Your task to perform on an android device: Check the weather Image 0: 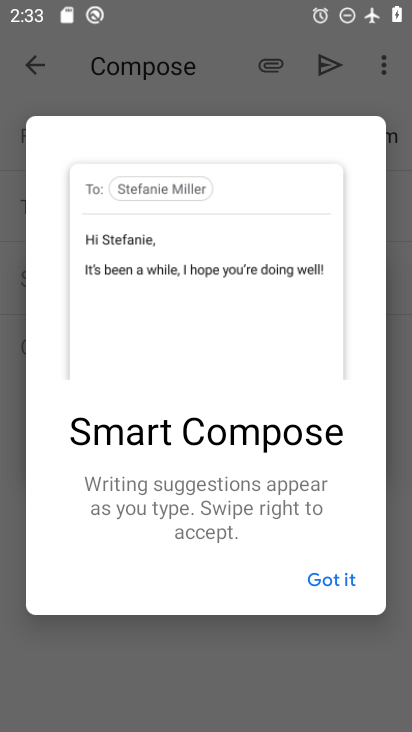
Step 0: press home button
Your task to perform on an android device: Check the weather Image 1: 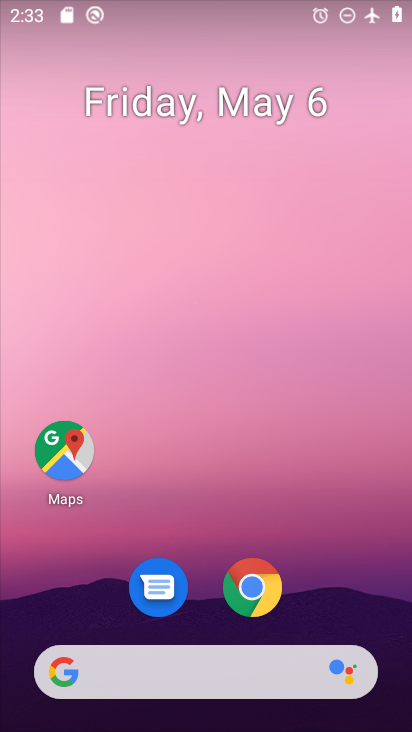
Step 1: click (246, 677)
Your task to perform on an android device: Check the weather Image 2: 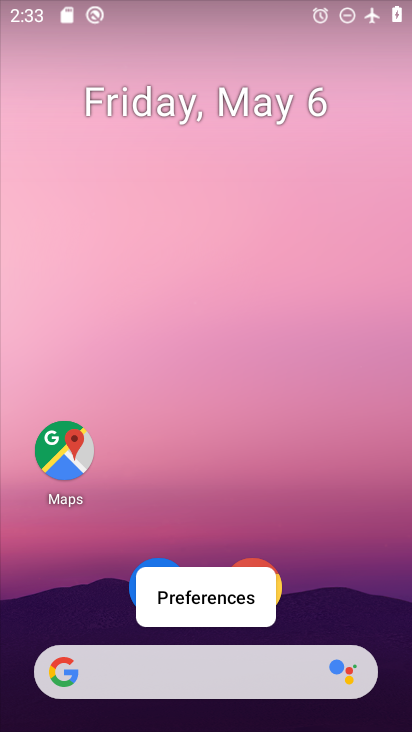
Step 2: click (245, 672)
Your task to perform on an android device: Check the weather Image 3: 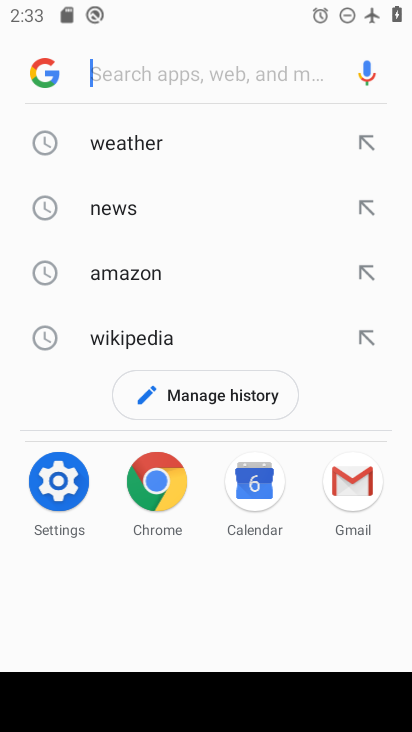
Step 3: click (129, 139)
Your task to perform on an android device: Check the weather Image 4: 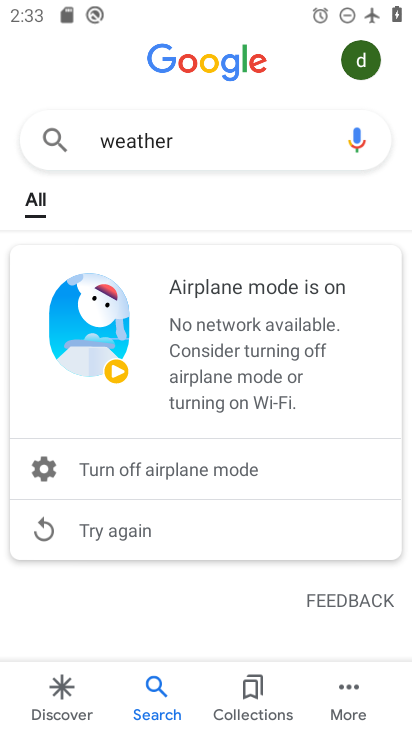
Step 4: task complete